Your task to perform on an android device: turn pop-ups on in chrome Image 0: 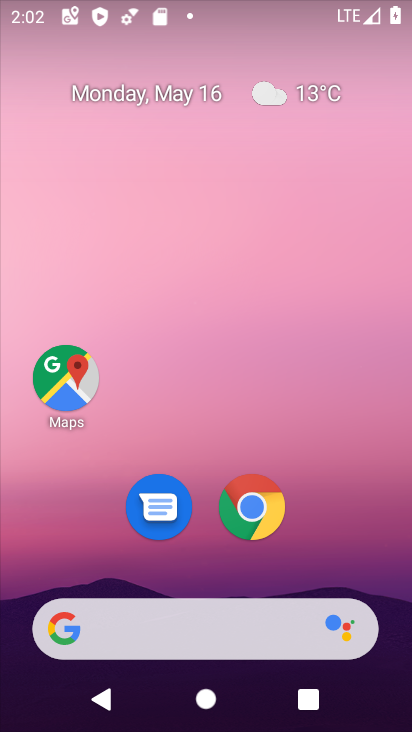
Step 0: click (259, 514)
Your task to perform on an android device: turn pop-ups on in chrome Image 1: 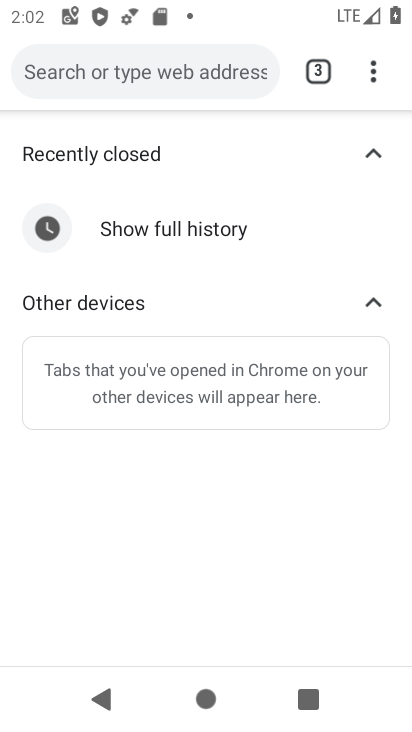
Step 1: click (372, 70)
Your task to perform on an android device: turn pop-ups on in chrome Image 2: 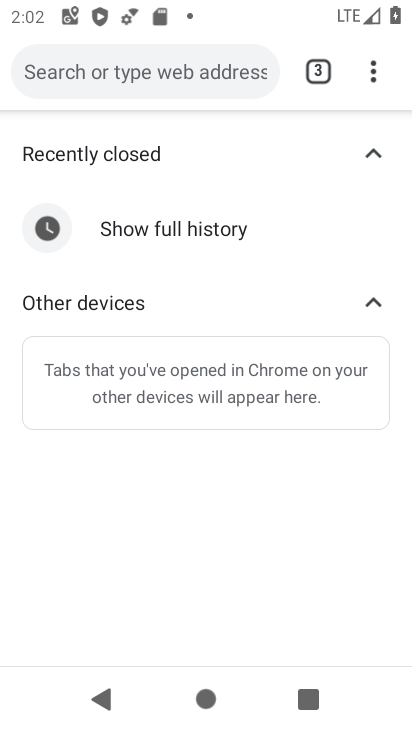
Step 2: click (367, 80)
Your task to perform on an android device: turn pop-ups on in chrome Image 3: 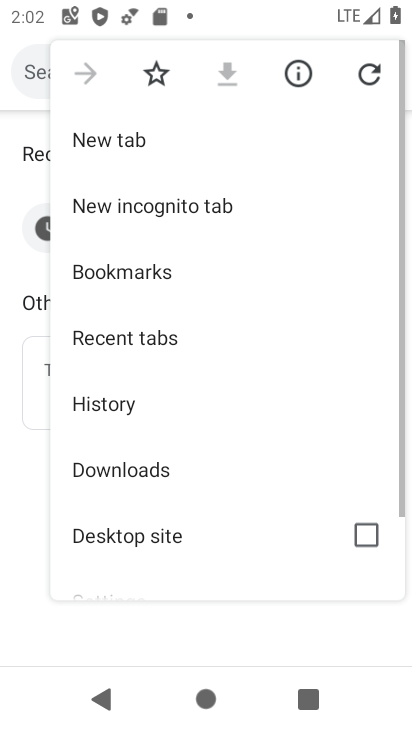
Step 3: drag from (194, 467) to (148, 59)
Your task to perform on an android device: turn pop-ups on in chrome Image 4: 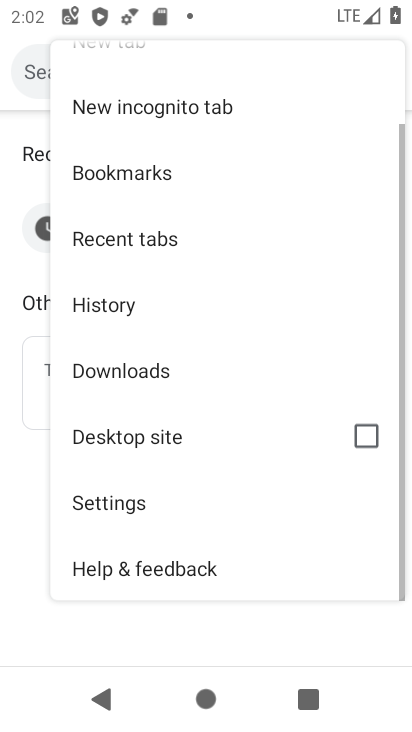
Step 4: click (164, 493)
Your task to perform on an android device: turn pop-ups on in chrome Image 5: 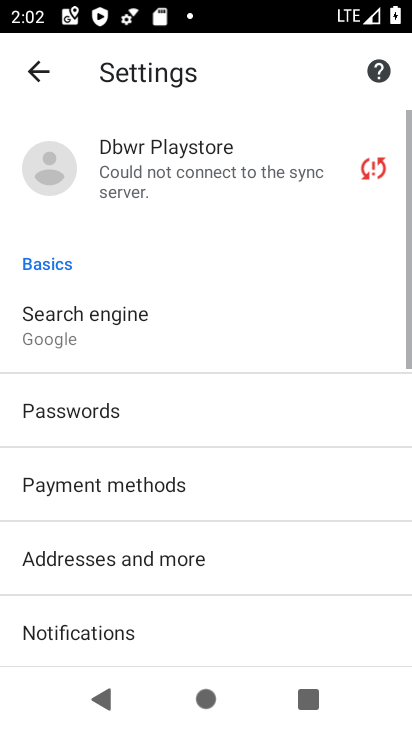
Step 5: drag from (220, 474) to (196, 184)
Your task to perform on an android device: turn pop-ups on in chrome Image 6: 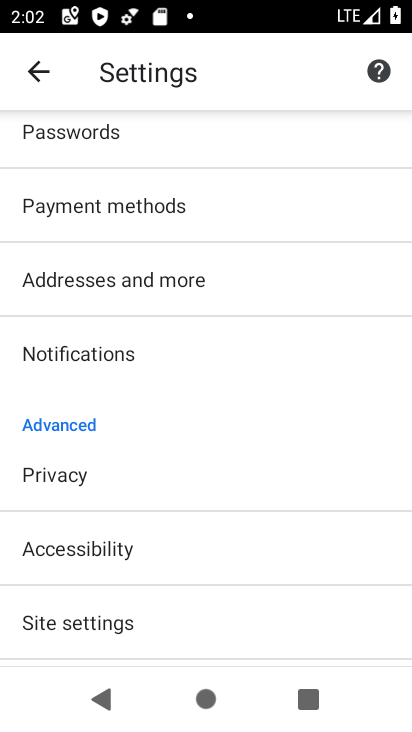
Step 6: drag from (203, 573) to (217, 262)
Your task to perform on an android device: turn pop-ups on in chrome Image 7: 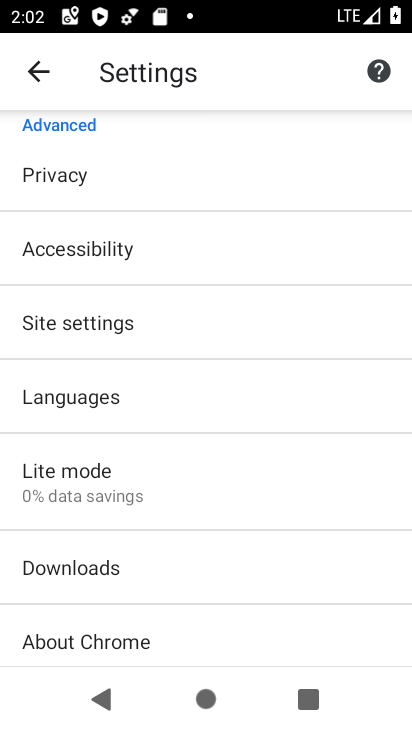
Step 7: drag from (224, 521) to (242, 261)
Your task to perform on an android device: turn pop-ups on in chrome Image 8: 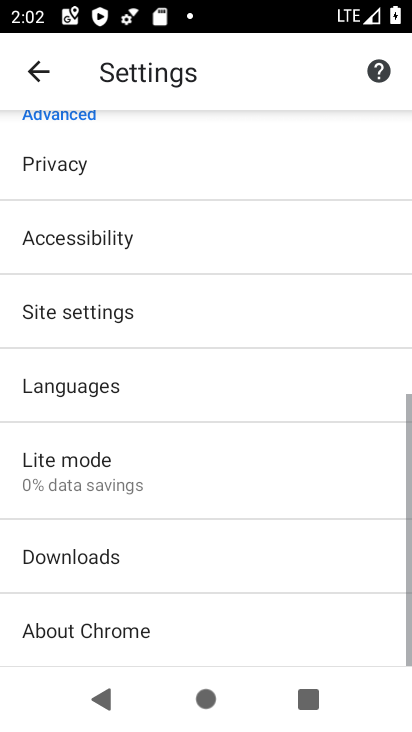
Step 8: click (151, 314)
Your task to perform on an android device: turn pop-ups on in chrome Image 9: 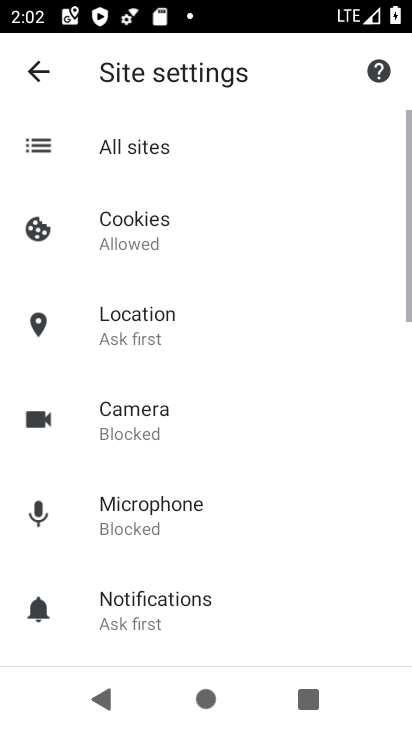
Step 9: drag from (223, 552) to (229, 177)
Your task to perform on an android device: turn pop-ups on in chrome Image 10: 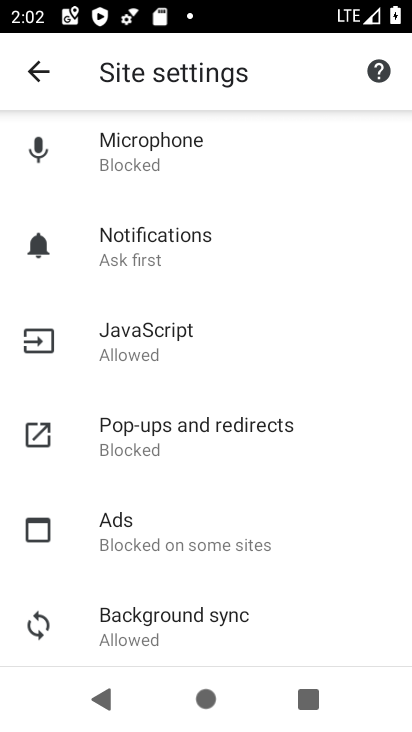
Step 10: drag from (235, 553) to (232, 454)
Your task to perform on an android device: turn pop-ups on in chrome Image 11: 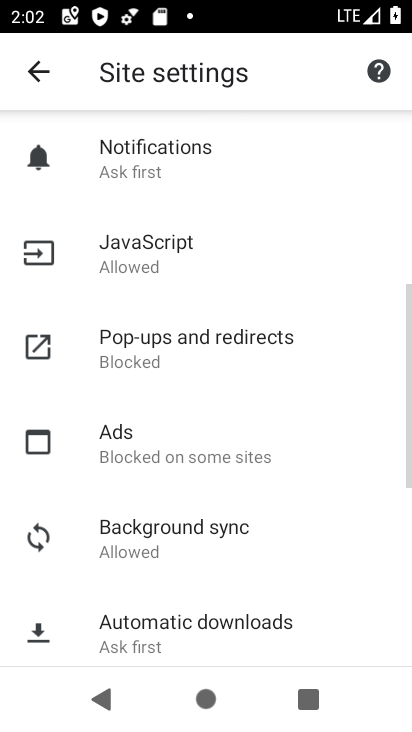
Step 11: click (217, 357)
Your task to perform on an android device: turn pop-ups on in chrome Image 12: 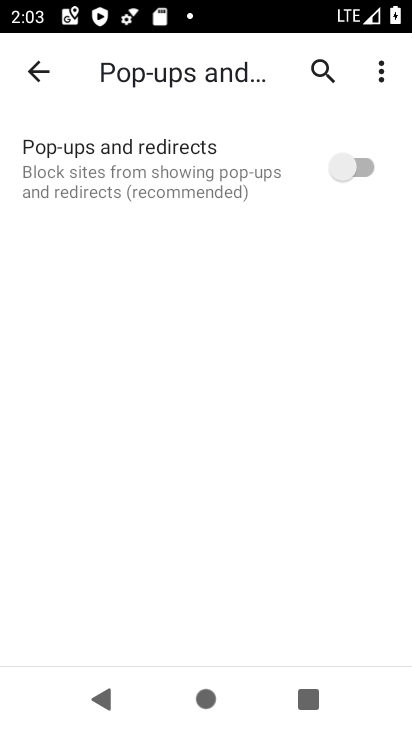
Step 12: click (355, 157)
Your task to perform on an android device: turn pop-ups on in chrome Image 13: 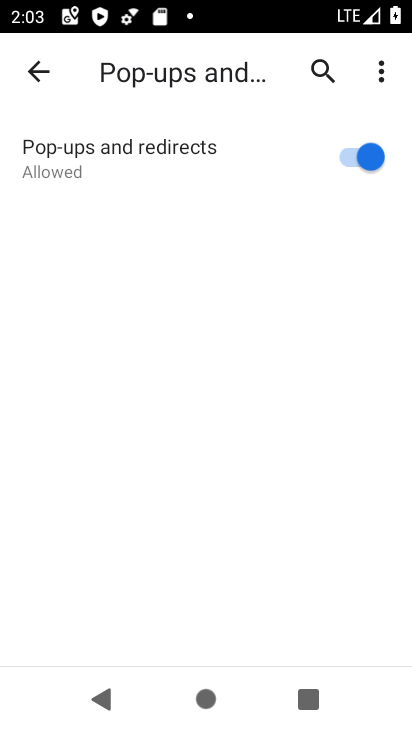
Step 13: task complete